Your task to perform on an android device: stop showing notifications on the lock screen Image 0: 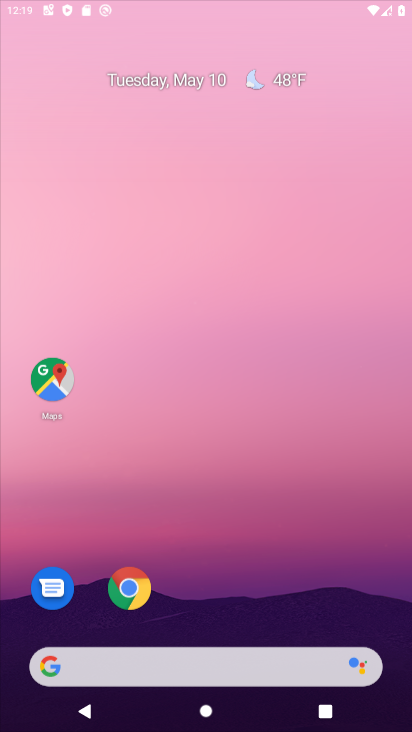
Step 0: drag from (291, 598) to (226, 319)
Your task to perform on an android device: stop showing notifications on the lock screen Image 1: 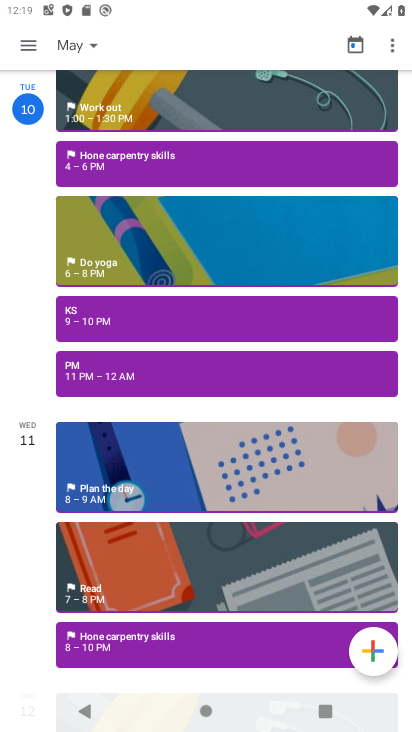
Step 1: press home button
Your task to perform on an android device: stop showing notifications on the lock screen Image 2: 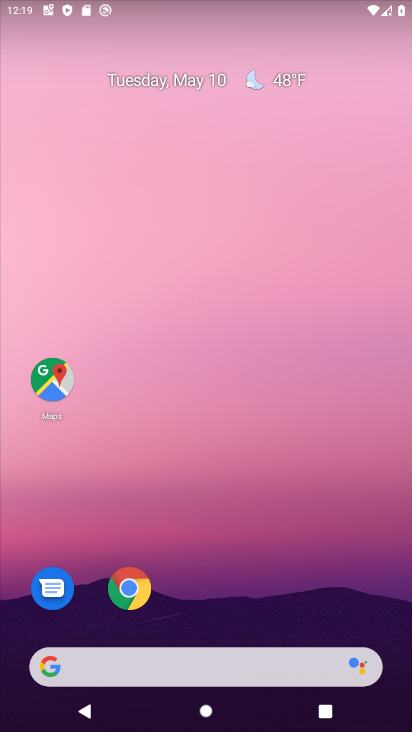
Step 2: press home button
Your task to perform on an android device: stop showing notifications on the lock screen Image 3: 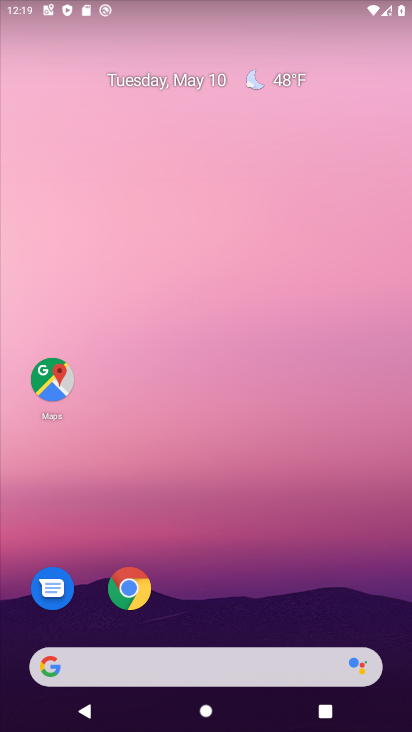
Step 3: drag from (207, 580) to (218, 427)
Your task to perform on an android device: stop showing notifications on the lock screen Image 4: 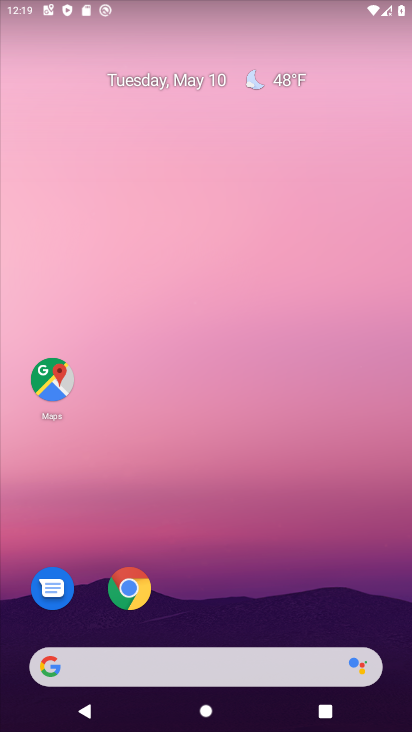
Step 4: drag from (234, 496) to (221, 217)
Your task to perform on an android device: stop showing notifications on the lock screen Image 5: 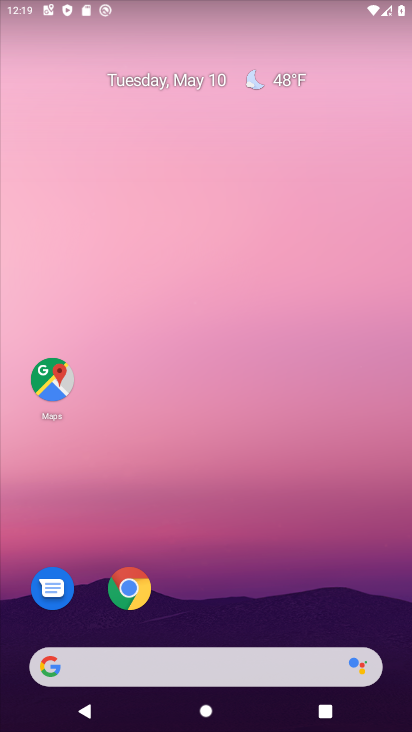
Step 5: drag from (280, 586) to (184, 272)
Your task to perform on an android device: stop showing notifications on the lock screen Image 6: 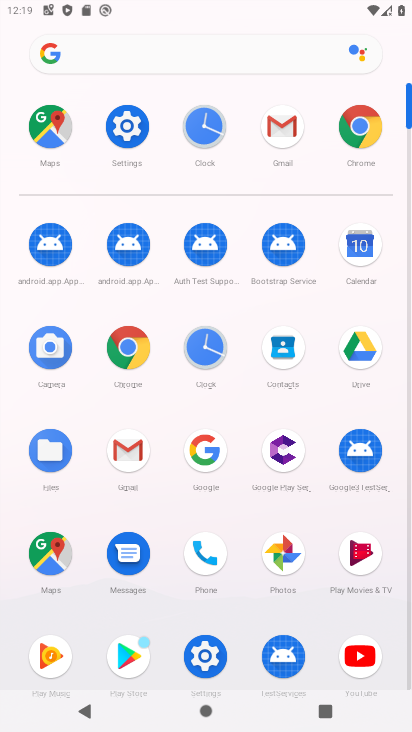
Step 6: click (114, 141)
Your task to perform on an android device: stop showing notifications on the lock screen Image 7: 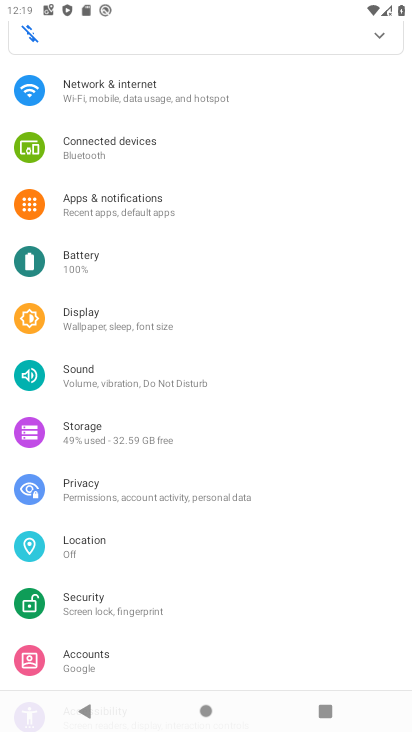
Step 7: click (138, 196)
Your task to perform on an android device: stop showing notifications on the lock screen Image 8: 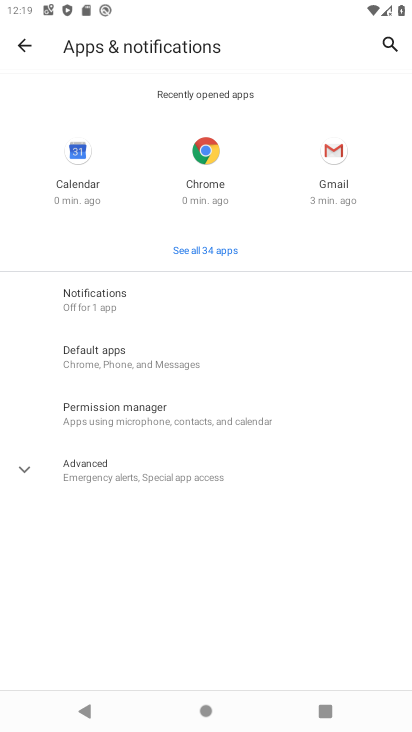
Step 8: click (142, 300)
Your task to perform on an android device: stop showing notifications on the lock screen Image 9: 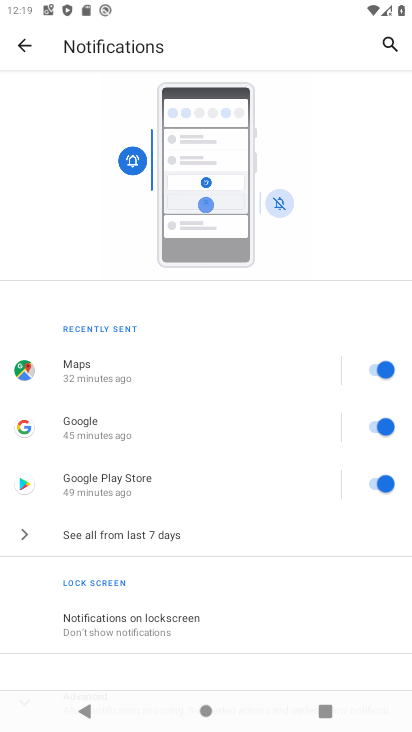
Step 9: click (173, 615)
Your task to perform on an android device: stop showing notifications on the lock screen Image 10: 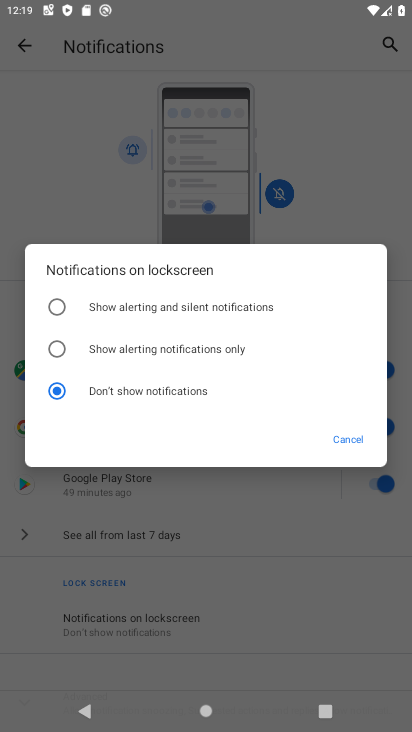
Step 10: click (100, 303)
Your task to perform on an android device: stop showing notifications on the lock screen Image 11: 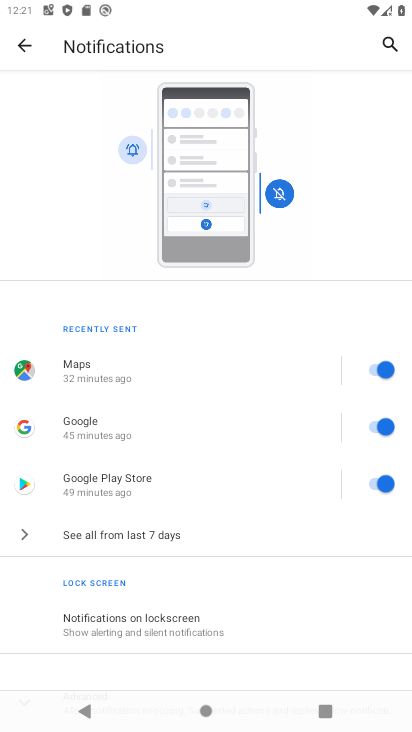
Step 11: task complete